Your task to perform on an android device: toggle translation in the chrome app Image 0: 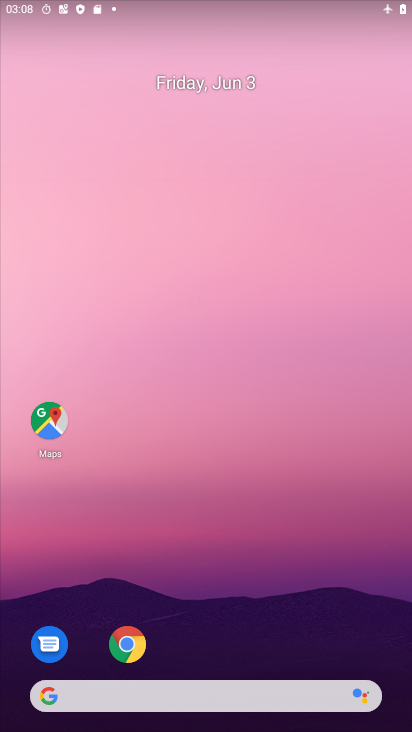
Step 0: click (136, 623)
Your task to perform on an android device: toggle translation in the chrome app Image 1: 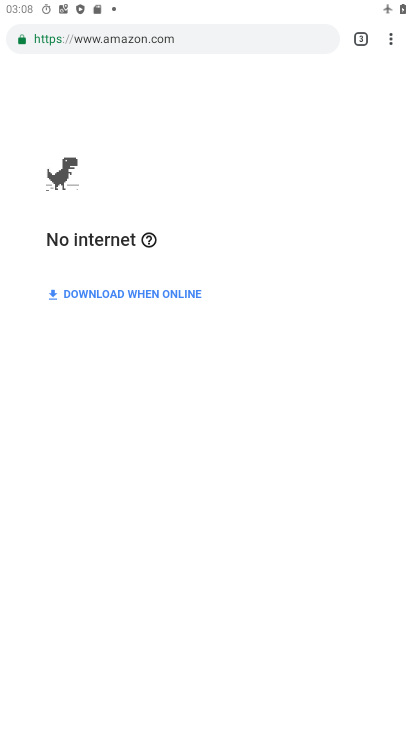
Step 1: click (388, 35)
Your task to perform on an android device: toggle translation in the chrome app Image 2: 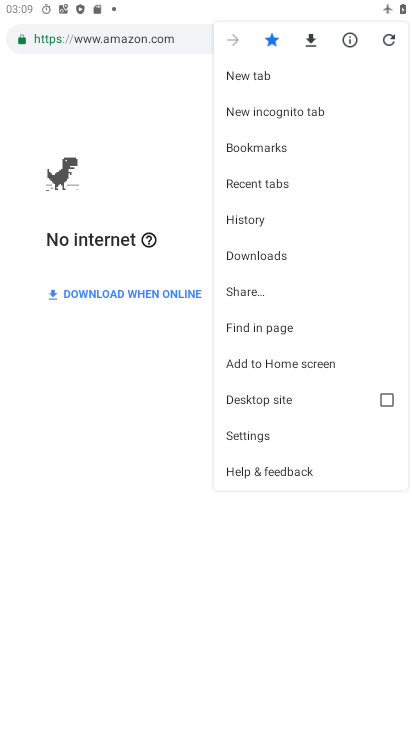
Step 2: click (250, 427)
Your task to perform on an android device: toggle translation in the chrome app Image 3: 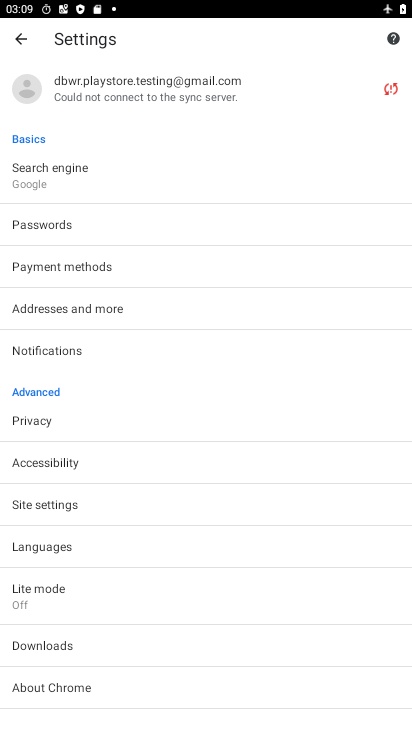
Step 3: drag from (220, 598) to (219, 436)
Your task to perform on an android device: toggle translation in the chrome app Image 4: 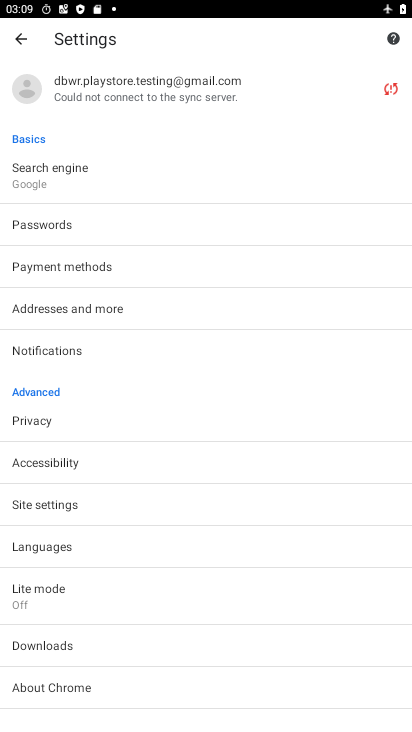
Step 4: click (85, 540)
Your task to perform on an android device: toggle translation in the chrome app Image 5: 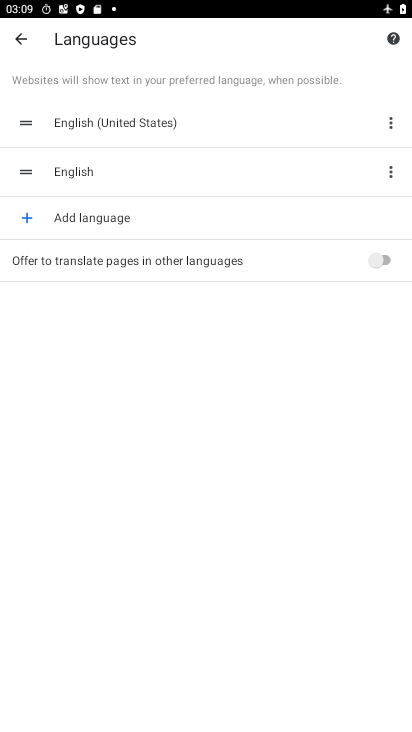
Step 5: click (383, 264)
Your task to perform on an android device: toggle translation in the chrome app Image 6: 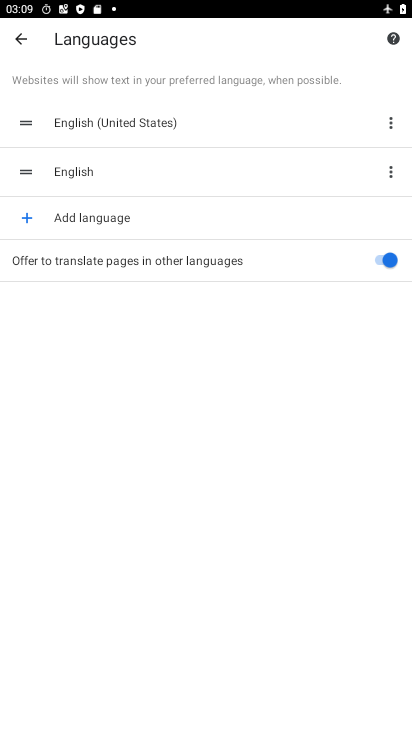
Step 6: task complete